Your task to perform on an android device: Open Google Maps and go to "Timeline" Image 0: 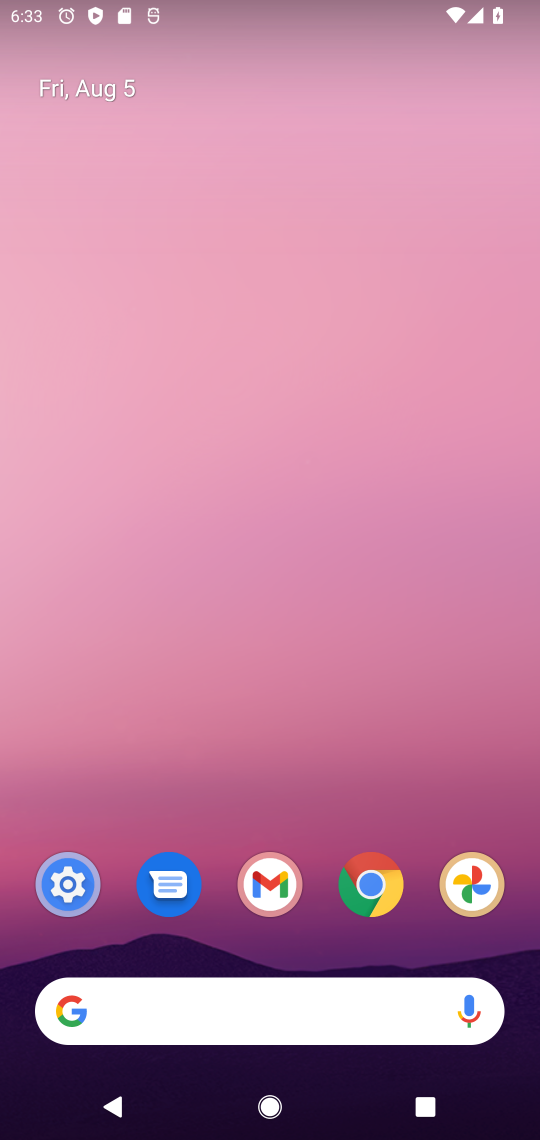
Step 0: press home button
Your task to perform on an android device: Open Google Maps and go to "Timeline" Image 1: 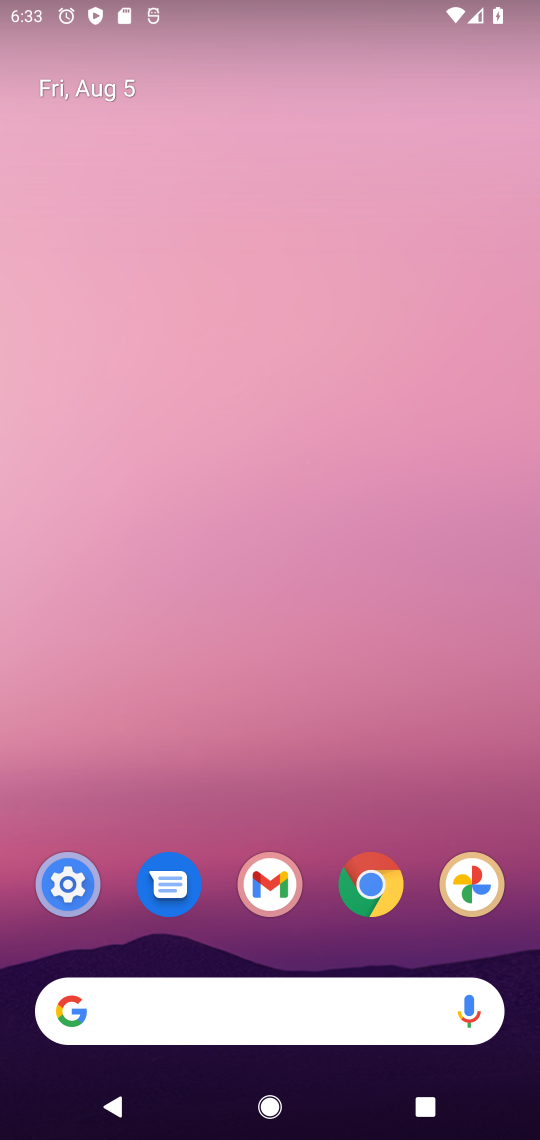
Step 1: drag from (316, 830) to (352, 95)
Your task to perform on an android device: Open Google Maps and go to "Timeline" Image 2: 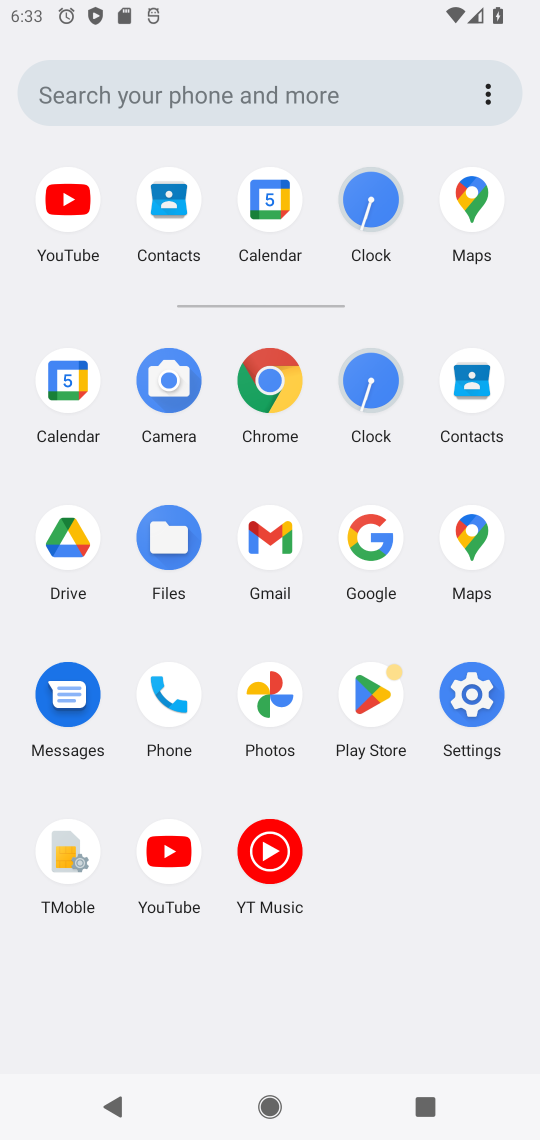
Step 2: click (462, 524)
Your task to perform on an android device: Open Google Maps and go to "Timeline" Image 3: 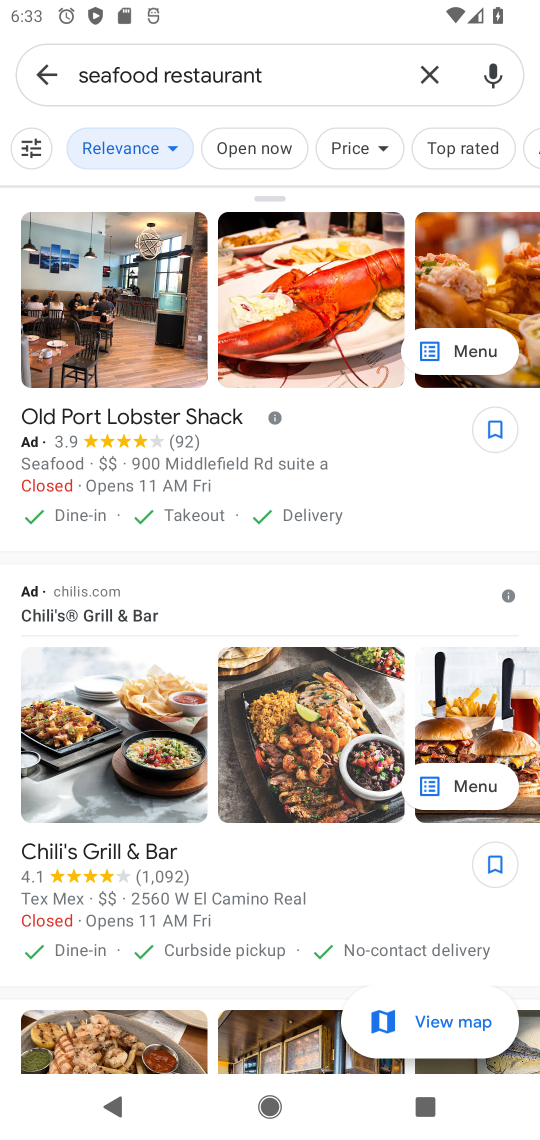
Step 3: click (39, 65)
Your task to perform on an android device: Open Google Maps and go to "Timeline" Image 4: 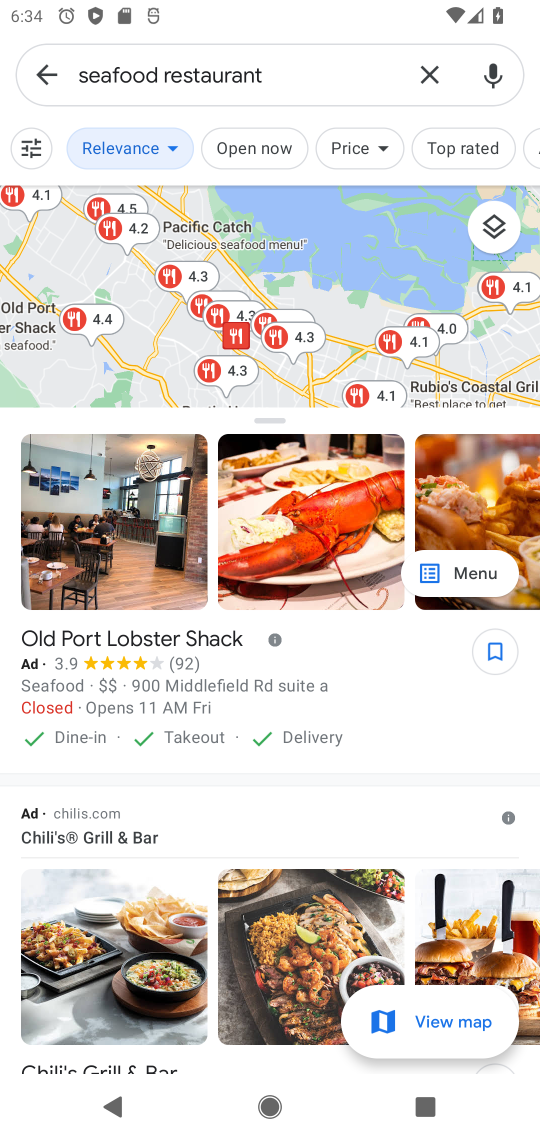
Step 4: click (44, 71)
Your task to perform on an android device: Open Google Maps and go to "Timeline" Image 5: 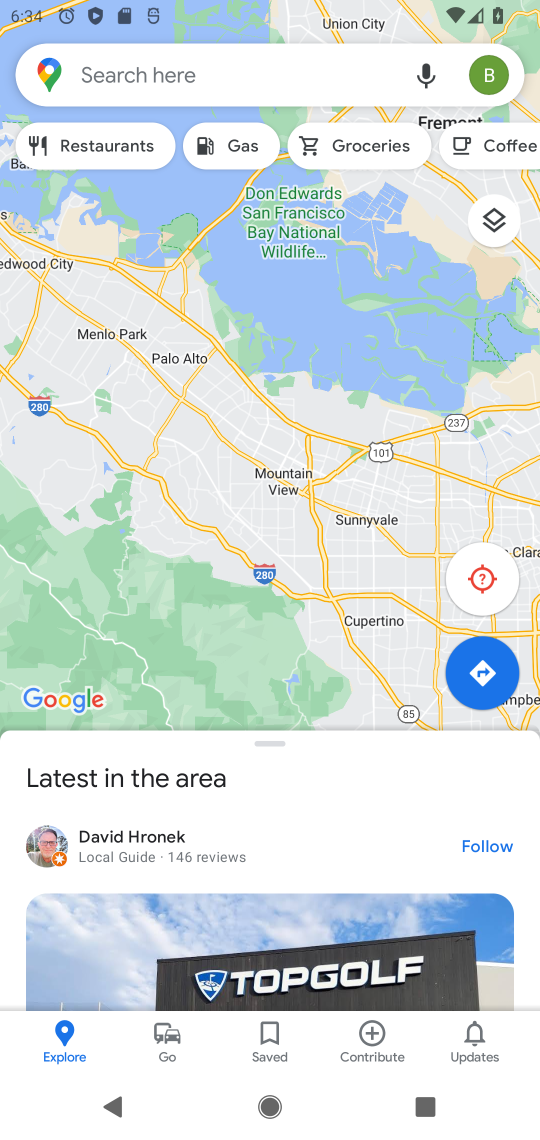
Step 5: click (490, 69)
Your task to perform on an android device: Open Google Maps and go to "Timeline" Image 6: 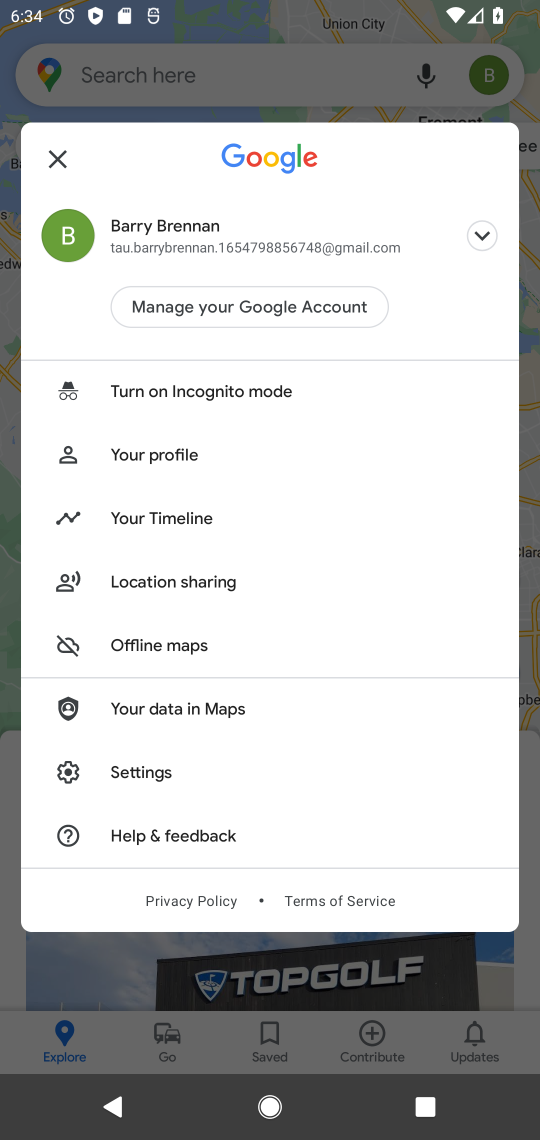
Step 6: click (168, 515)
Your task to perform on an android device: Open Google Maps and go to "Timeline" Image 7: 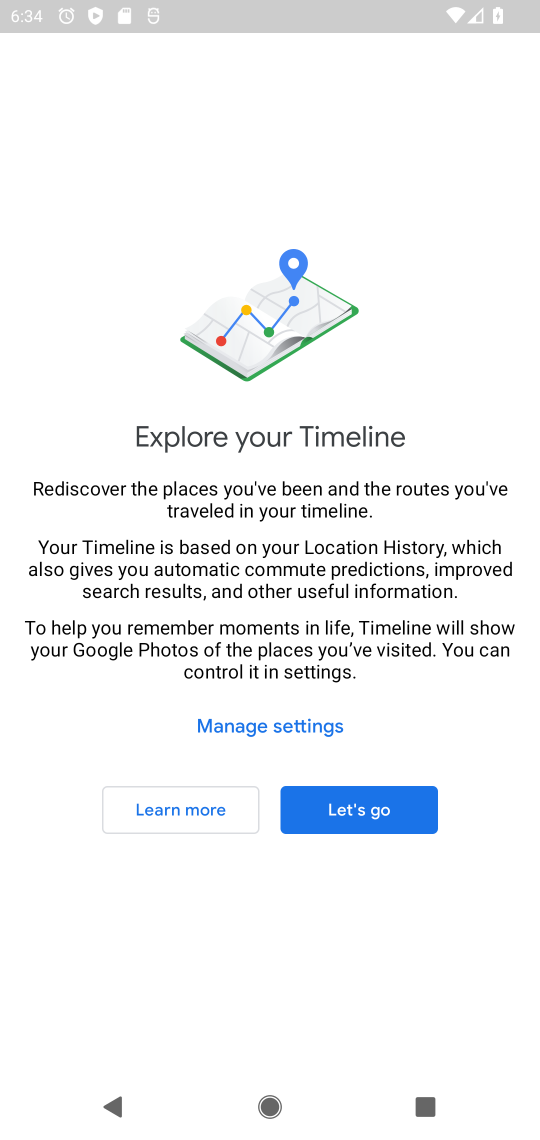
Step 7: click (349, 814)
Your task to perform on an android device: Open Google Maps and go to "Timeline" Image 8: 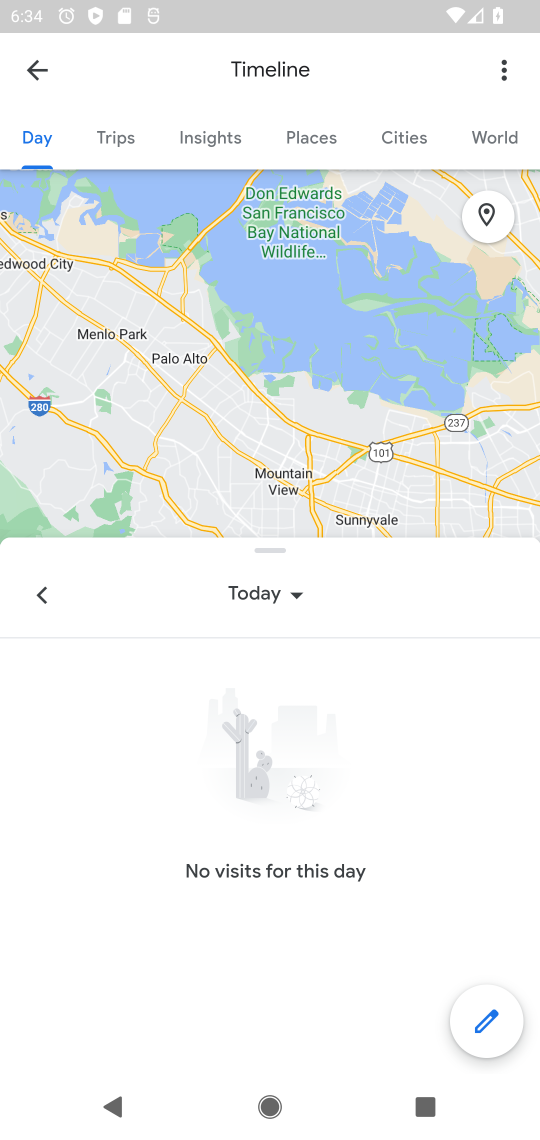
Step 8: task complete